Your task to perform on an android device: turn notification dots off Image 0: 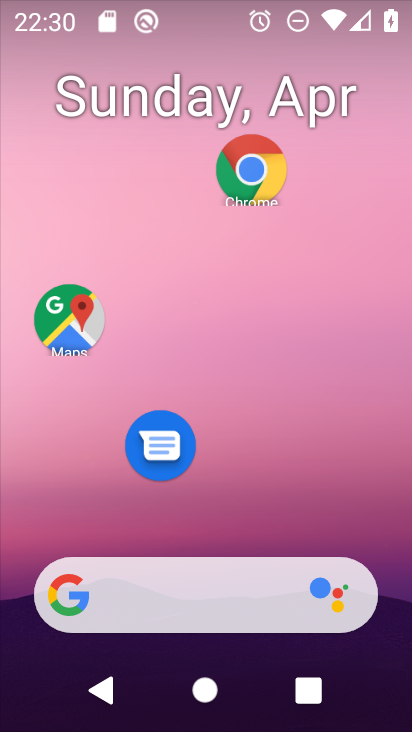
Step 0: drag from (254, 500) to (237, 10)
Your task to perform on an android device: turn notification dots off Image 1: 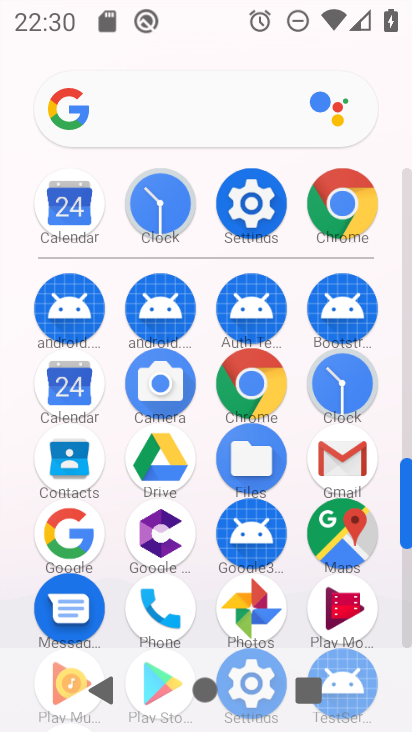
Step 1: click (250, 196)
Your task to perform on an android device: turn notification dots off Image 2: 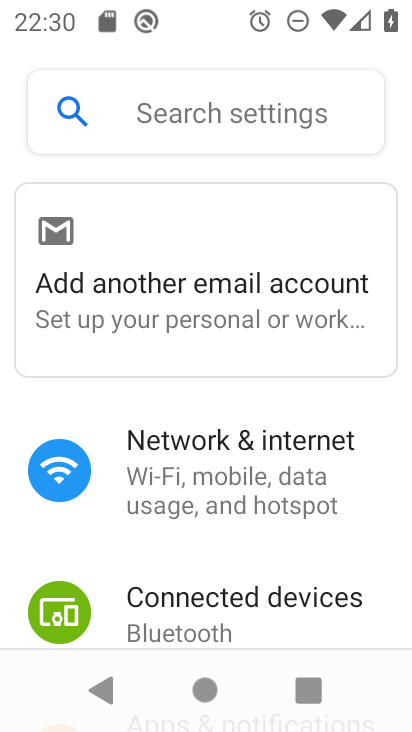
Step 2: drag from (252, 599) to (253, 274)
Your task to perform on an android device: turn notification dots off Image 3: 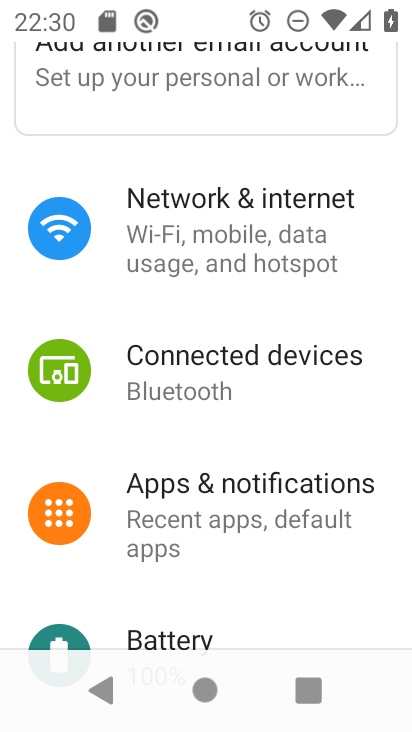
Step 3: click (255, 493)
Your task to perform on an android device: turn notification dots off Image 4: 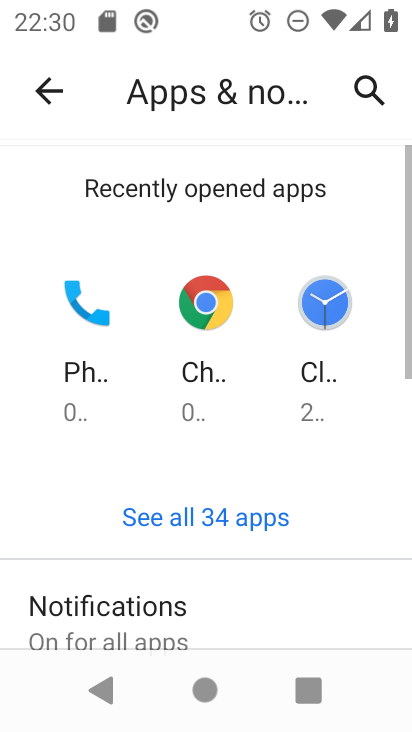
Step 4: click (190, 609)
Your task to perform on an android device: turn notification dots off Image 5: 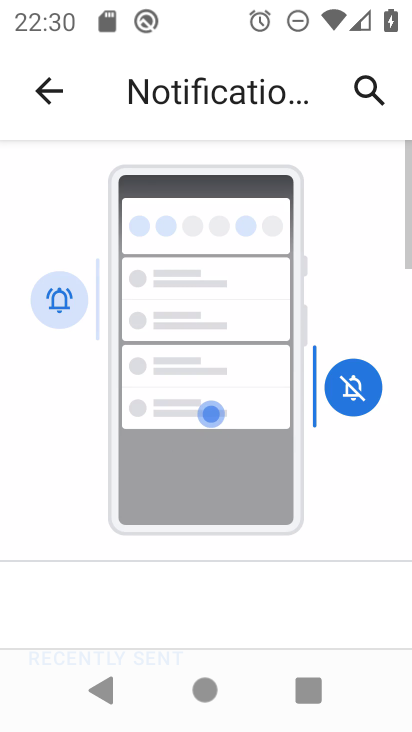
Step 5: drag from (300, 593) to (301, 41)
Your task to perform on an android device: turn notification dots off Image 6: 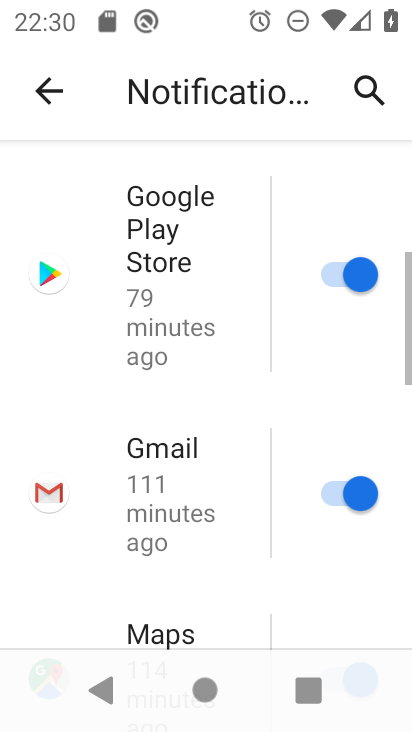
Step 6: drag from (237, 567) to (237, 14)
Your task to perform on an android device: turn notification dots off Image 7: 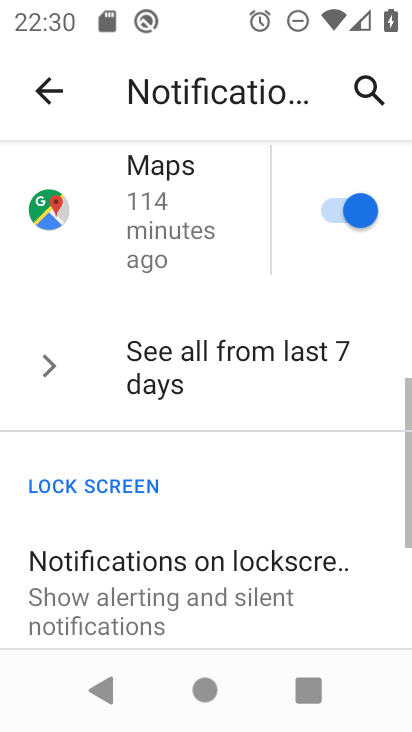
Step 7: drag from (201, 581) to (250, 187)
Your task to perform on an android device: turn notification dots off Image 8: 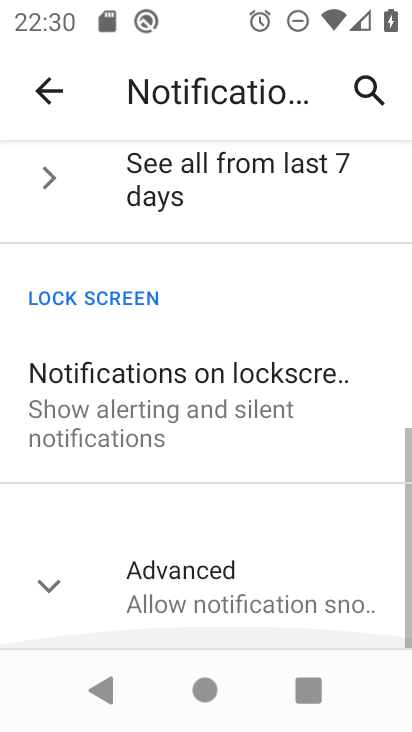
Step 8: click (199, 596)
Your task to perform on an android device: turn notification dots off Image 9: 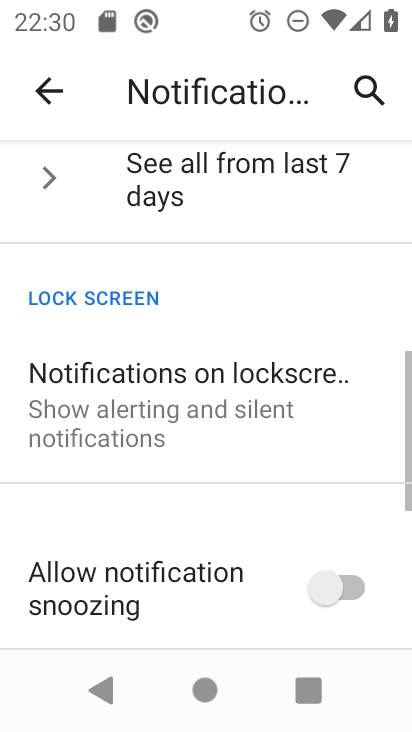
Step 9: task complete